Your task to perform on an android device: change the clock display to digital Image 0: 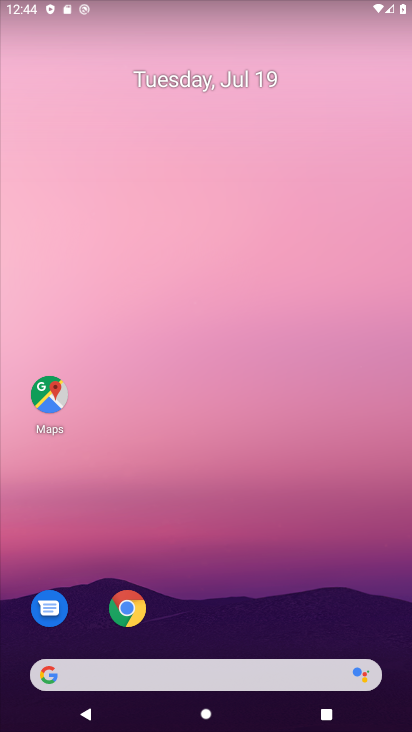
Step 0: drag from (201, 630) to (149, 0)
Your task to perform on an android device: change the clock display to digital Image 1: 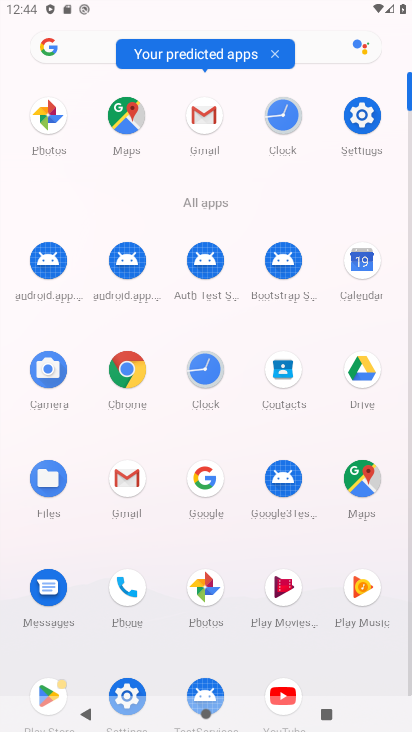
Step 1: click (197, 373)
Your task to perform on an android device: change the clock display to digital Image 2: 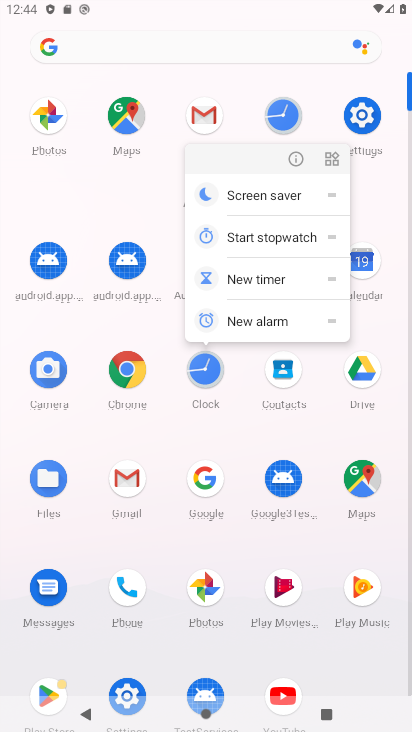
Step 2: click (197, 372)
Your task to perform on an android device: change the clock display to digital Image 3: 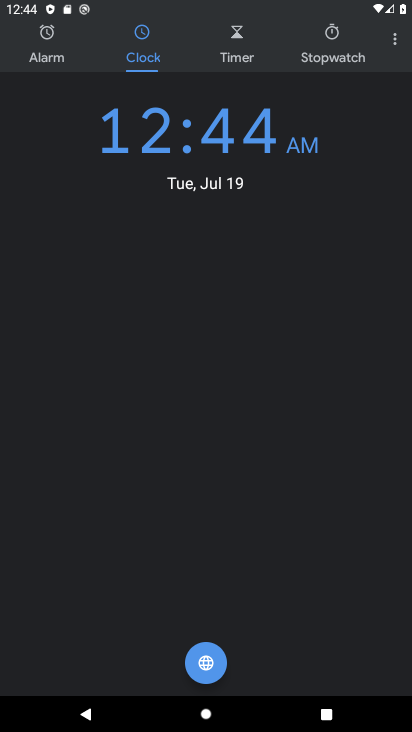
Step 3: click (388, 55)
Your task to perform on an android device: change the clock display to digital Image 4: 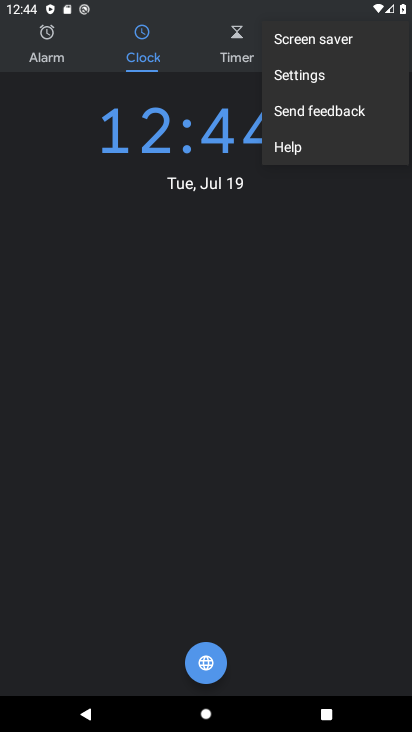
Step 4: click (317, 83)
Your task to perform on an android device: change the clock display to digital Image 5: 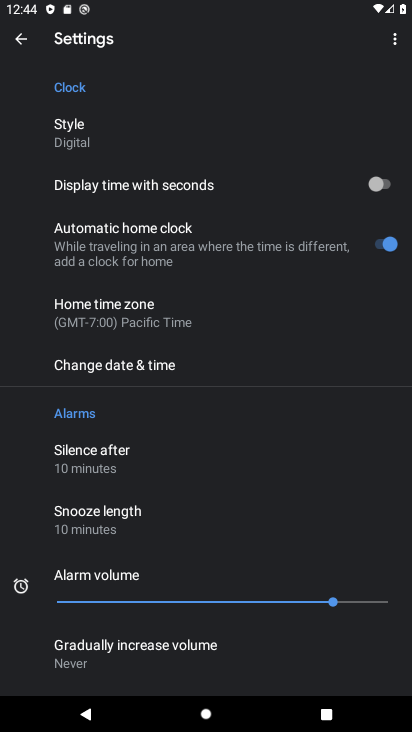
Step 5: task complete